Your task to perform on an android device: change text size in settings app Image 0: 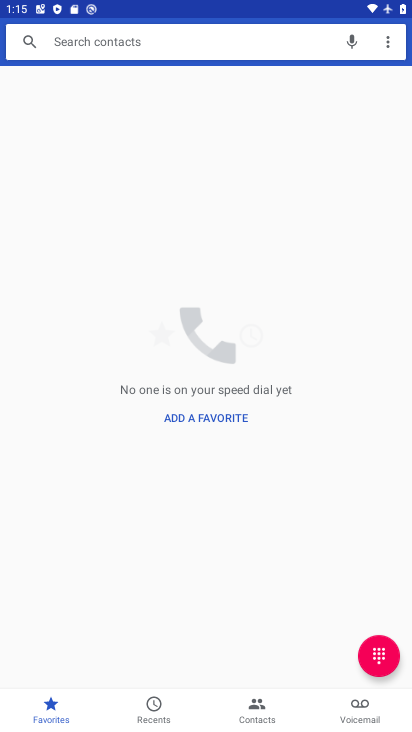
Step 0: press home button
Your task to perform on an android device: change text size in settings app Image 1: 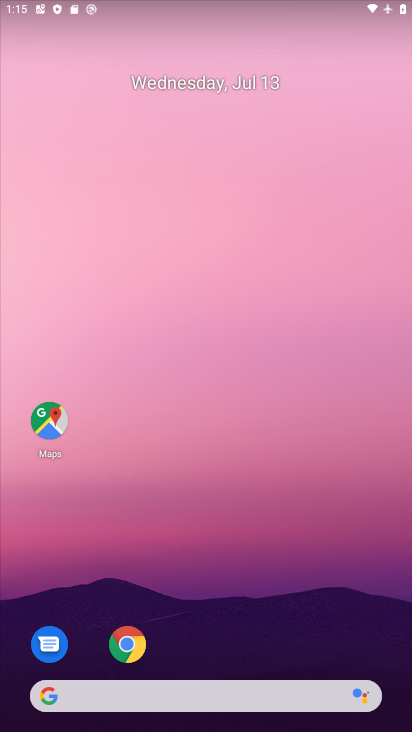
Step 1: drag from (286, 581) to (265, 34)
Your task to perform on an android device: change text size in settings app Image 2: 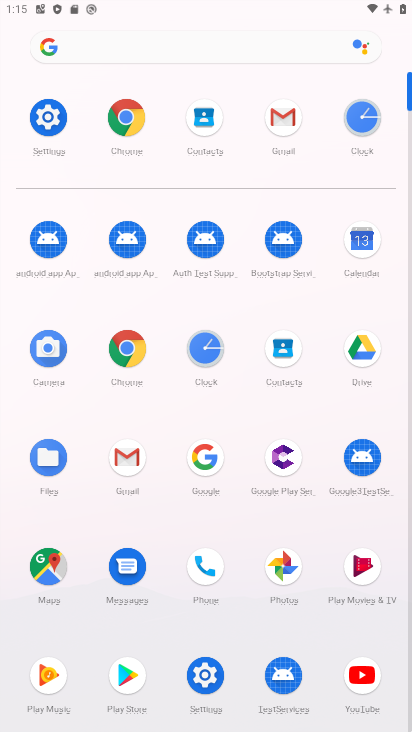
Step 2: click (57, 115)
Your task to perform on an android device: change text size in settings app Image 3: 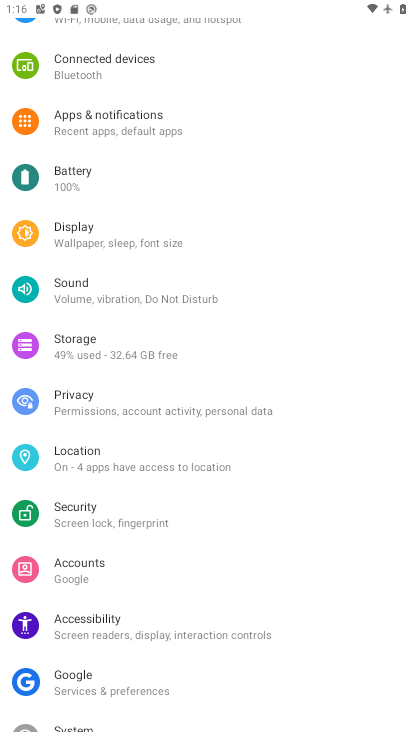
Step 3: click (139, 243)
Your task to perform on an android device: change text size in settings app Image 4: 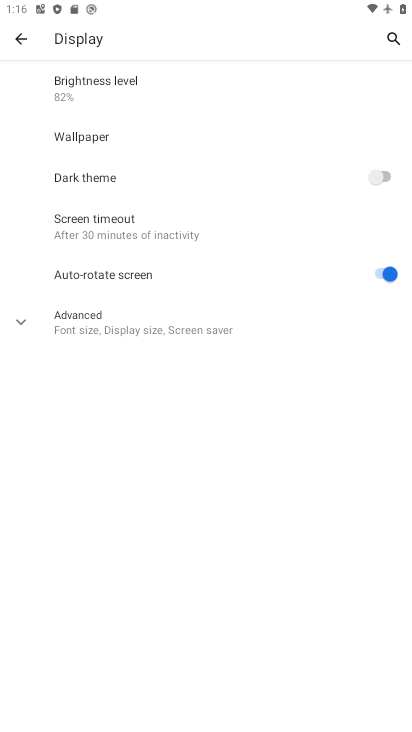
Step 4: click (82, 322)
Your task to perform on an android device: change text size in settings app Image 5: 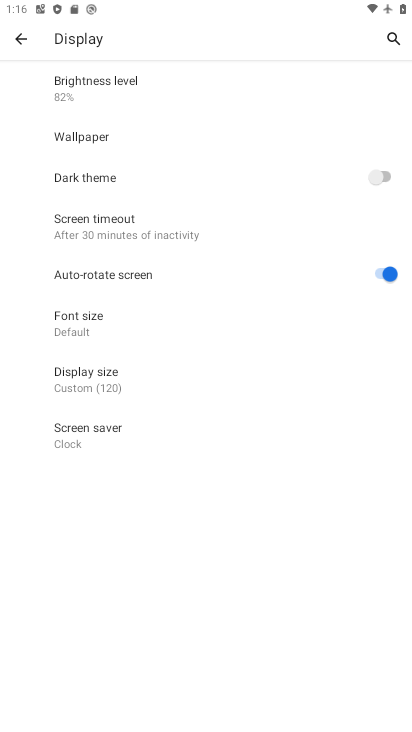
Step 5: click (83, 322)
Your task to perform on an android device: change text size in settings app Image 6: 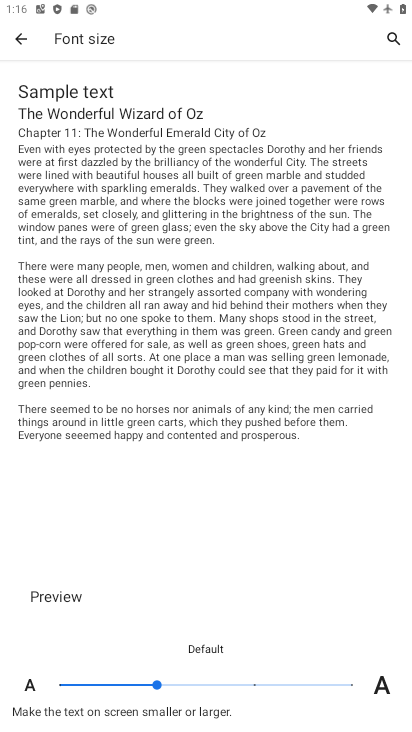
Step 6: click (78, 679)
Your task to perform on an android device: change text size in settings app Image 7: 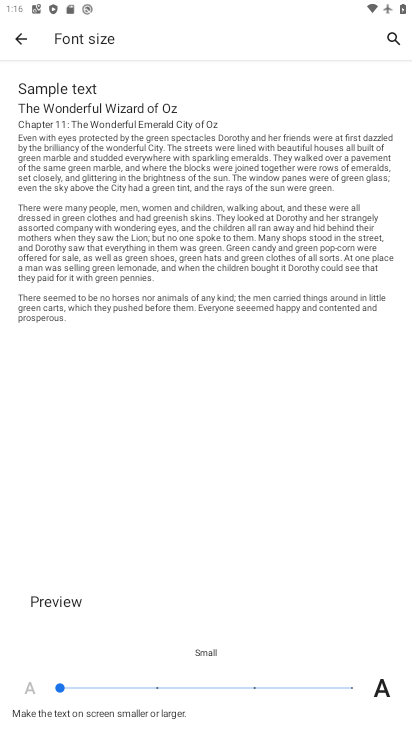
Step 7: task complete